Your task to perform on an android device: Open notification settings Image 0: 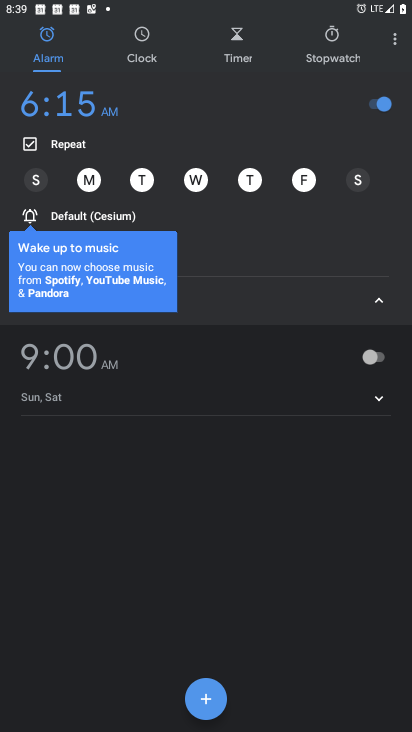
Step 0: press home button
Your task to perform on an android device: Open notification settings Image 1: 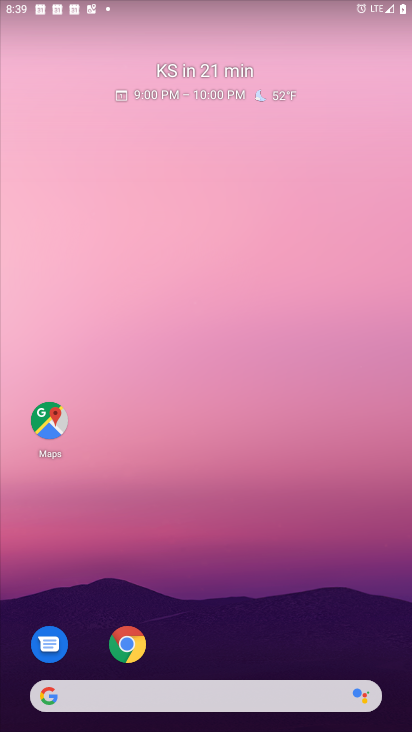
Step 1: drag from (383, 655) to (270, 151)
Your task to perform on an android device: Open notification settings Image 2: 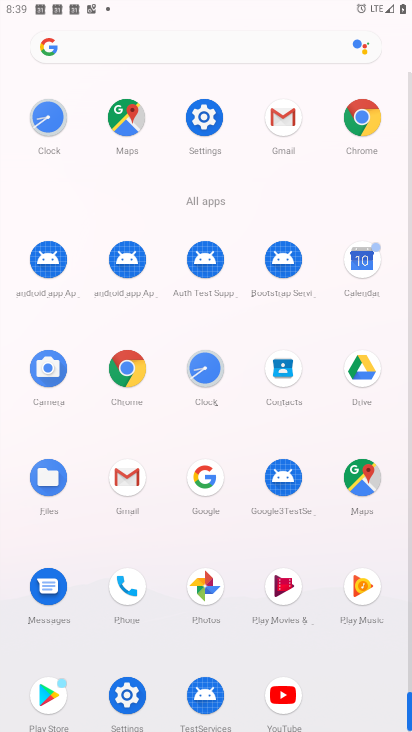
Step 2: click (125, 694)
Your task to perform on an android device: Open notification settings Image 3: 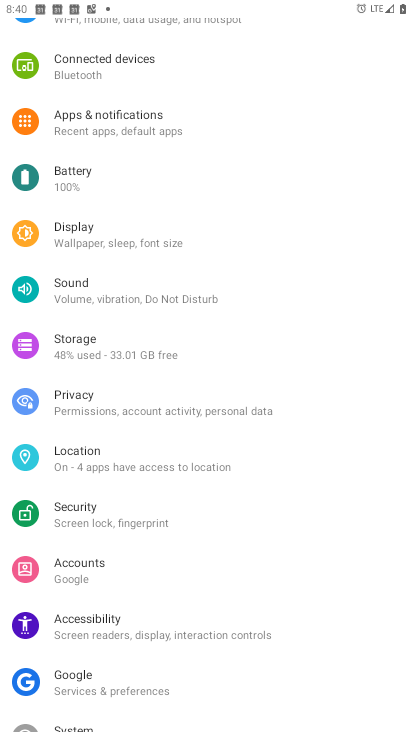
Step 3: click (97, 126)
Your task to perform on an android device: Open notification settings Image 4: 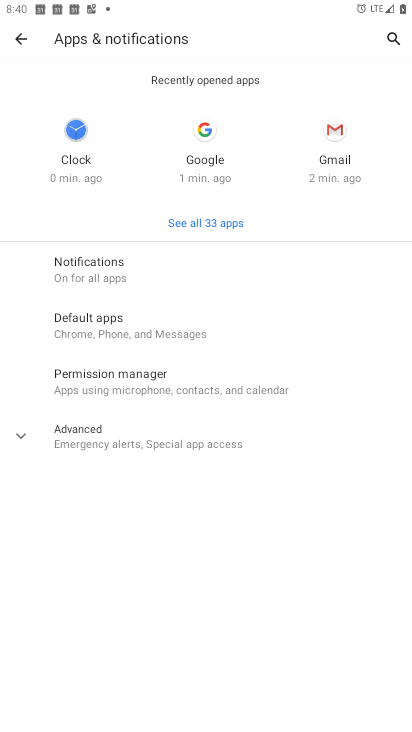
Step 4: click (24, 438)
Your task to perform on an android device: Open notification settings Image 5: 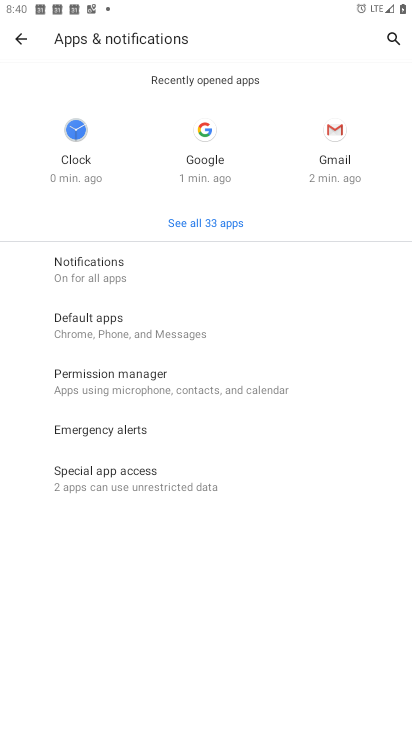
Step 5: task complete